Your task to perform on an android device: snooze an email in the gmail app Image 0: 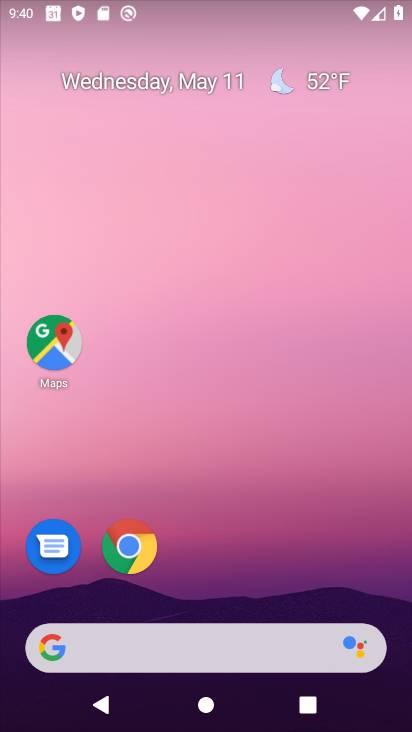
Step 0: drag from (166, 624) to (19, 114)
Your task to perform on an android device: snooze an email in the gmail app Image 1: 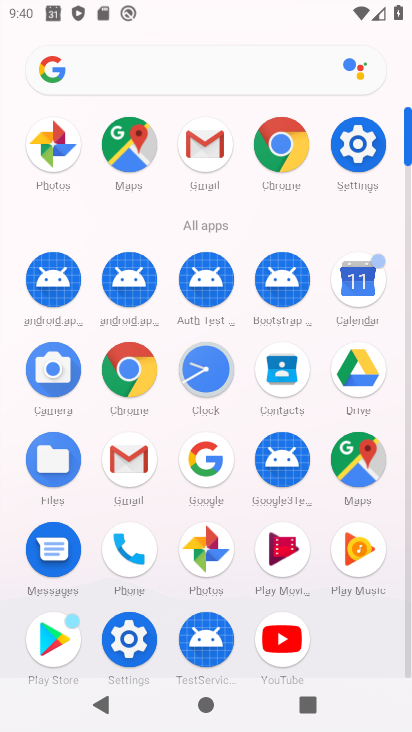
Step 1: click (131, 462)
Your task to perform on an android device: snooze an email in the gmail app Image 2: 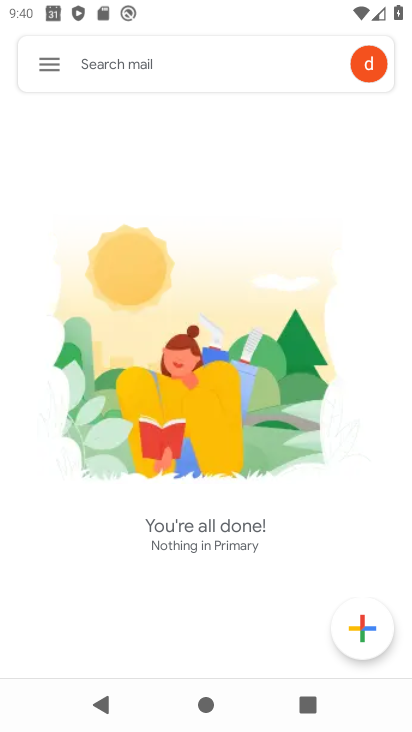
Step 2: click (56, 54)
Your task to perform on an android device: snooze an email in the gmail app Image 3: 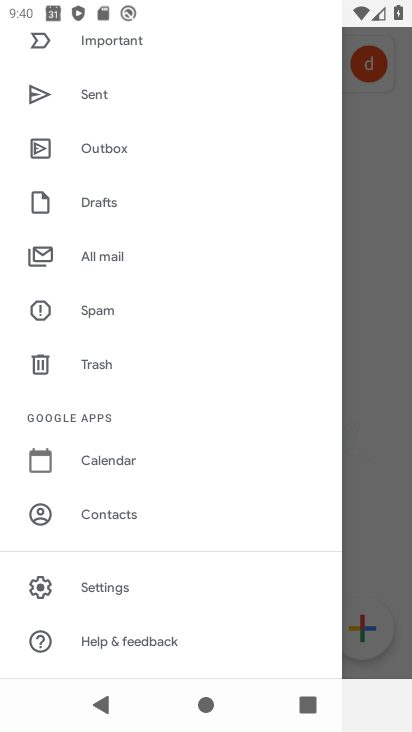
Step 3: drag from (114, 198) to (148, 481)
Your task to perform on an android device: snooze an email in the gmail app Image 4: 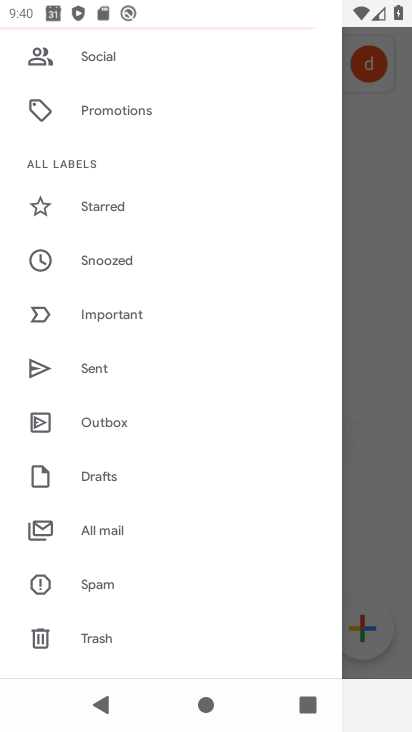
Step 4: click (103, 262)
Your task to perform on an android device: snooze an email in the gmail app Image 5: 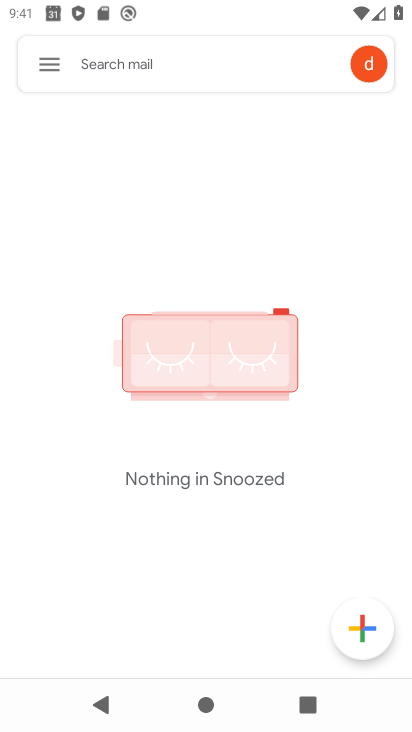
Step 5: task complete